Your task to perform on an android device: What's the weather going to be this weekend? Image 0: 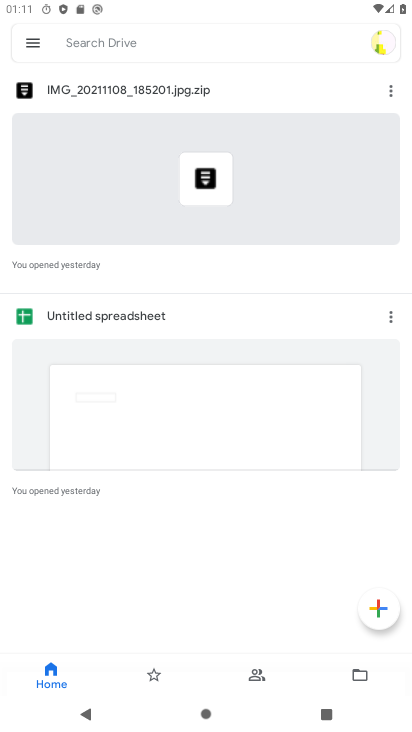
Step 0: press home button
Your task to perform on an android device: What's the weather going to be this weekend? Image 1: 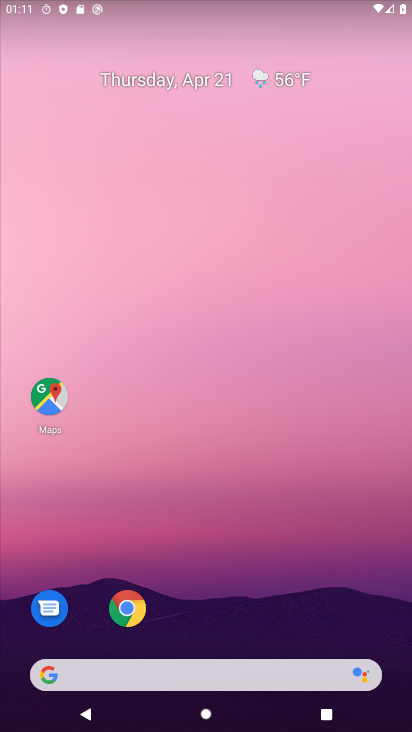
Step 1: click (287, 73)
Your task to perform on an android device: What's the weather going to be this weekend? Image 2: 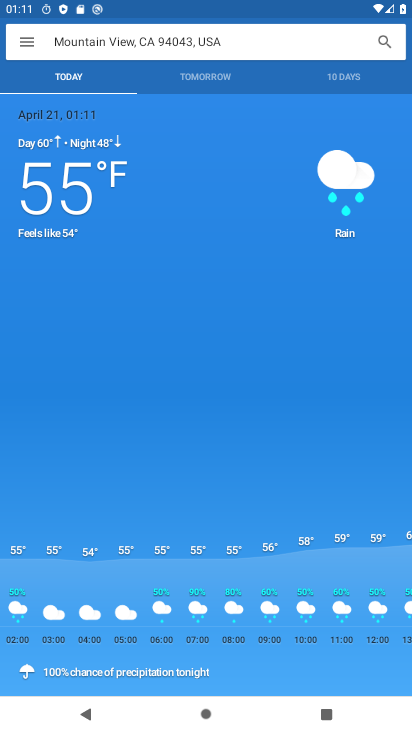
Step 2: click (349, 72)
Your task to perform on an android device: What's the weather going to be this weekend? Image 3: 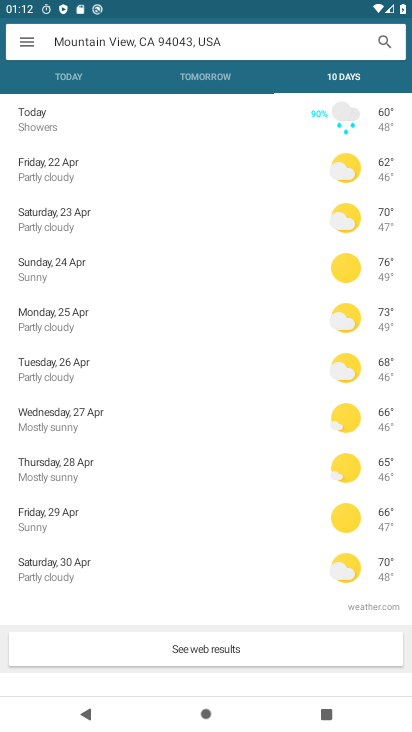
Step 3: task complete